Your task to perform on an android device: Turn off the flashlight Image 0: 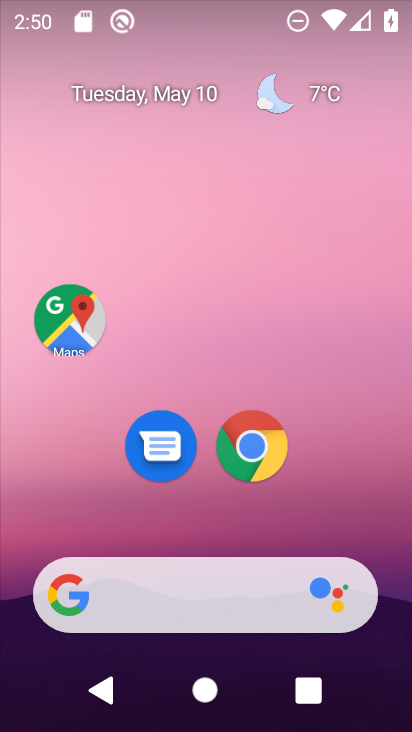
Step 0: drag from (226, 9) to (141, 527)
Your task to perform on an android device: Turn off the flashlight Image 1: 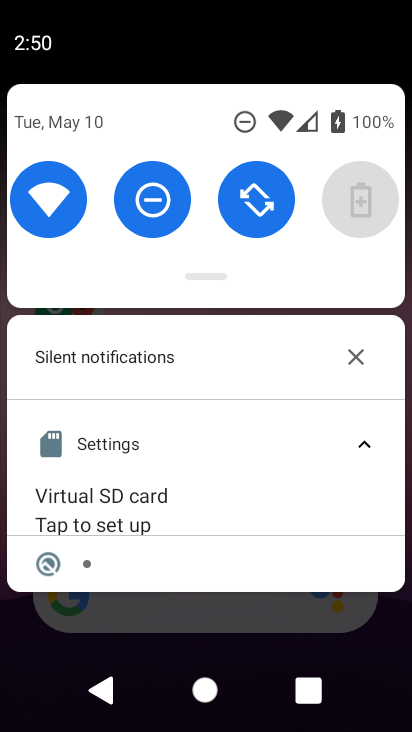
Step 1: task complete